Your task to perform on an android device: open app "Airtel Thanks" Image 0: 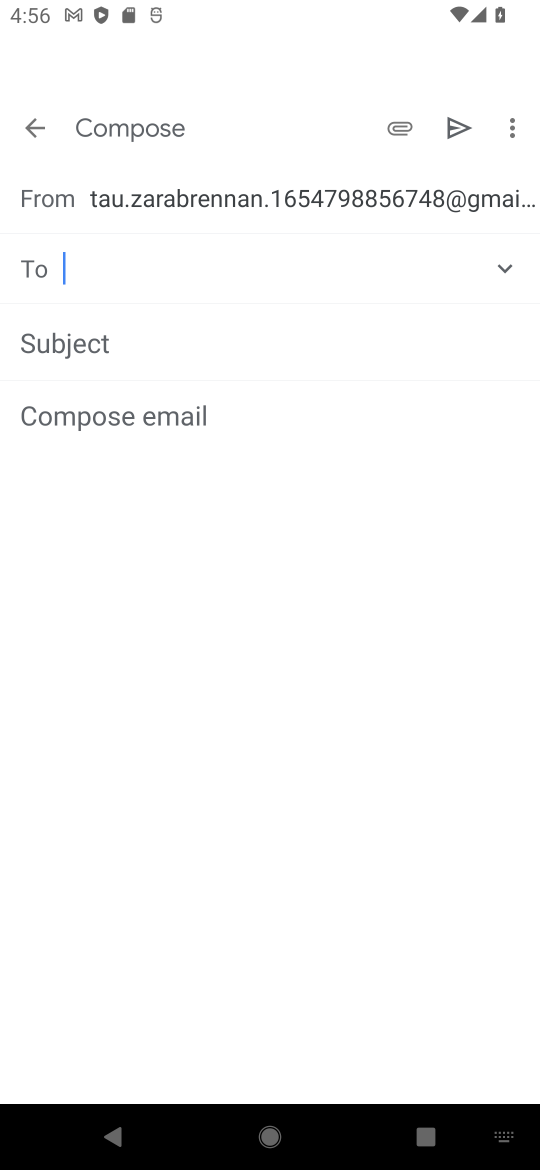
Step 0: press home button
Your task to perform on an android device: open app "Airtel Thanks" Image 1: 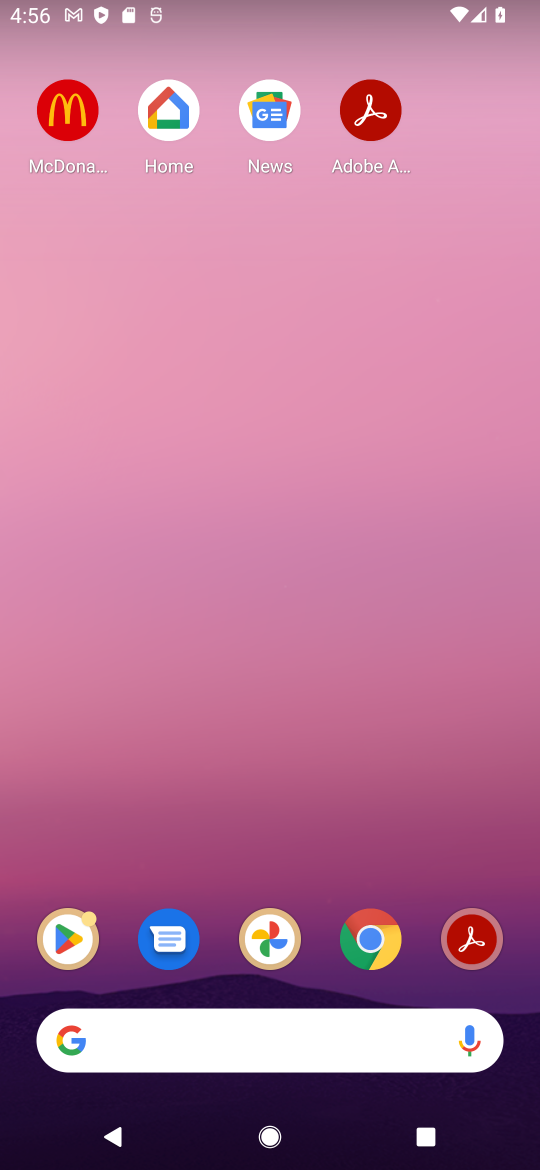
Step 1: click (83, 953)
Your task to perform on an android device: open app "Airtel Thanks" Image 2: 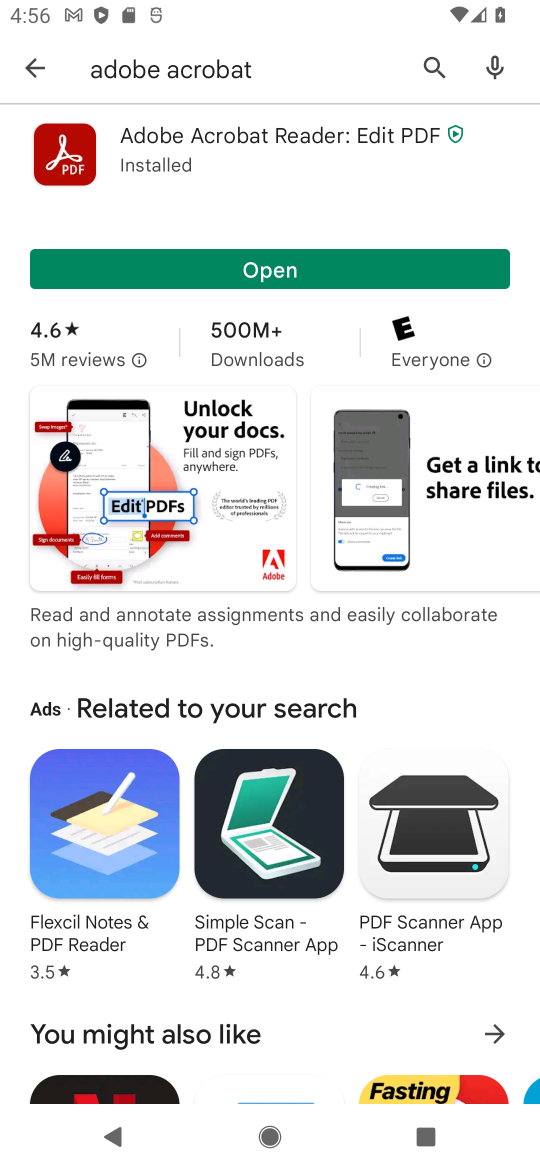
Step 2: click (437, 44)
Your task to perform on an android device: open app "Airtel Thanks" Image 3: 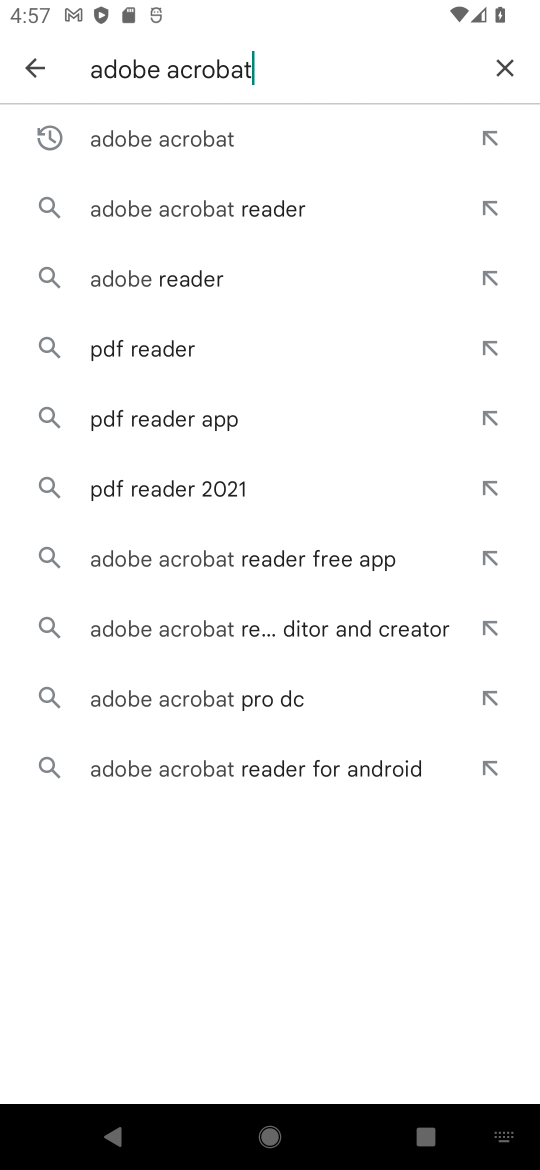
Step 3: click (489, 77)
Your task to perform on an android device: open app "Airtel Thanks" Image 4: 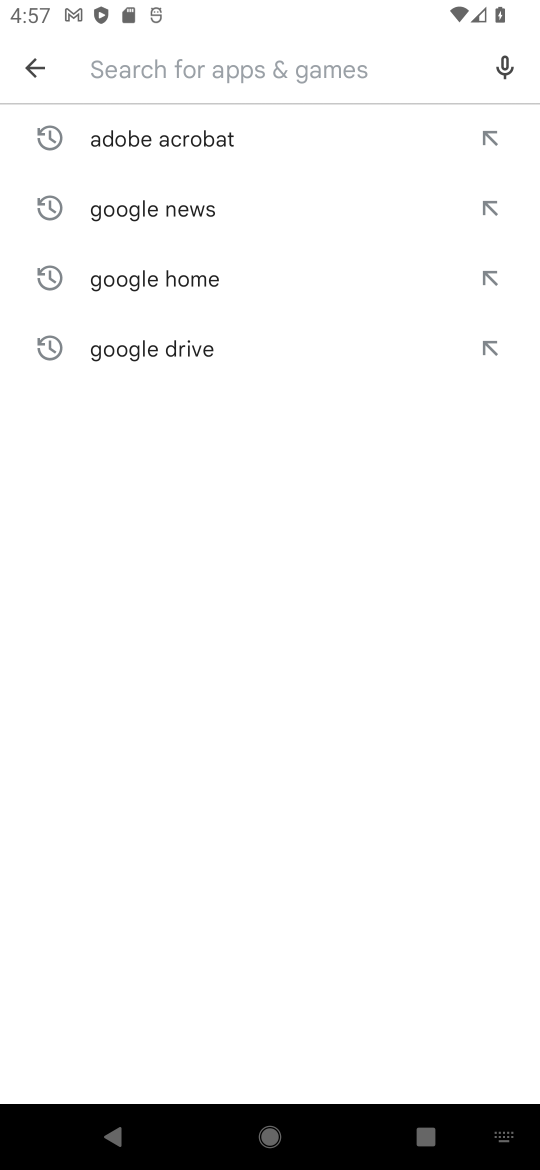
Step 4: type "airtel thanks"
Your task to perform on an android device: open app "Airtel Thanks" Image 5: 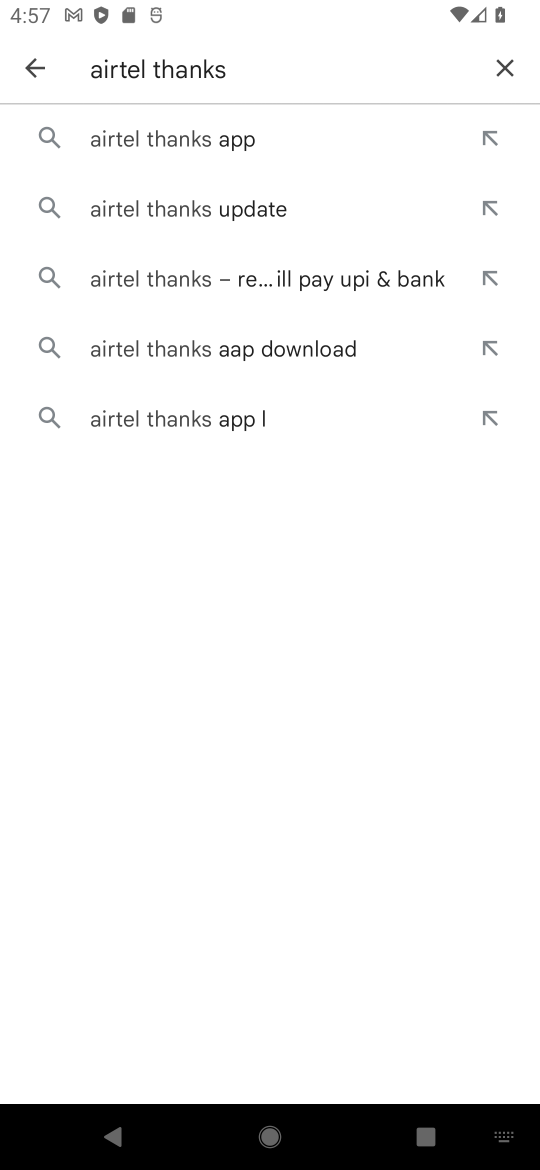
Step 5: click (361, 143)
Your task to perform on an android device: open app "Airtel Thanks" Image 6: 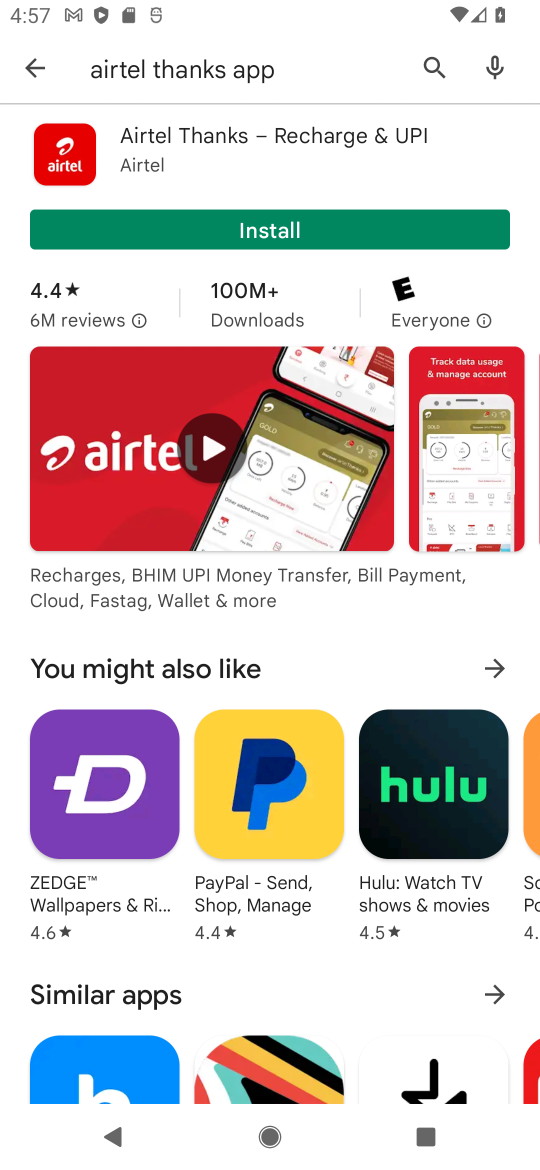
Step 6: task complete